Your task to perform on an android device: Find coffee shops on Maps Image 0: 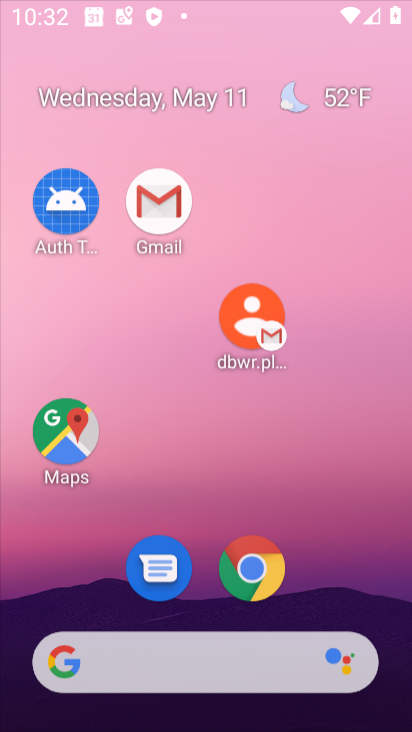
Step 0: drag from (354, 611) to (195, 180)
Your task to perform on an android device: Find coffee shops on Maps Image 1: 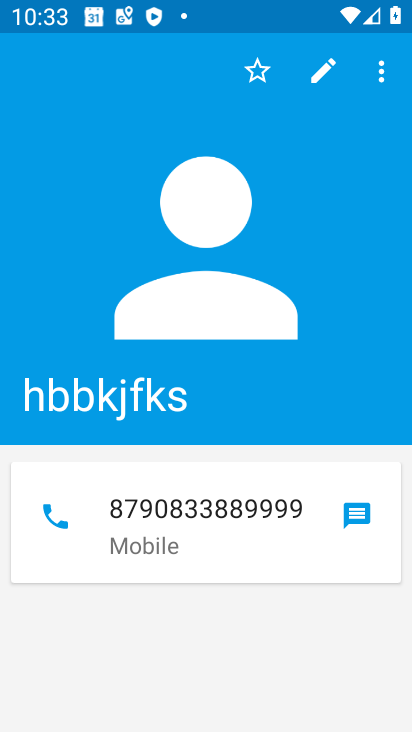
Step 1: press back button
Your task to perform on an android device: Find coffee shops on Maps Image 2: 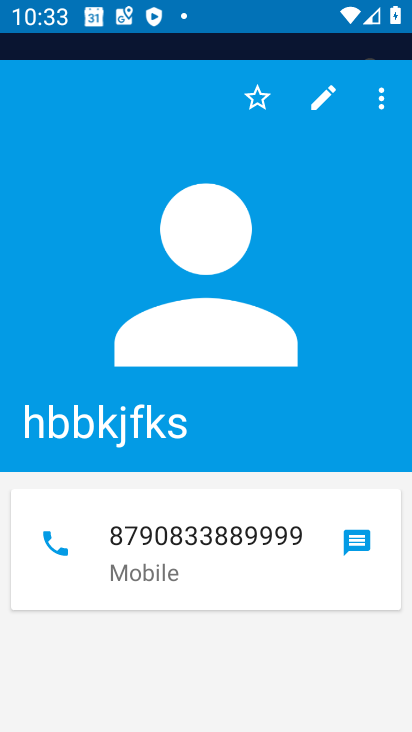
Step 2: press back button
Your task to perform on an android device: Find coffee shops on Maps Image 3: 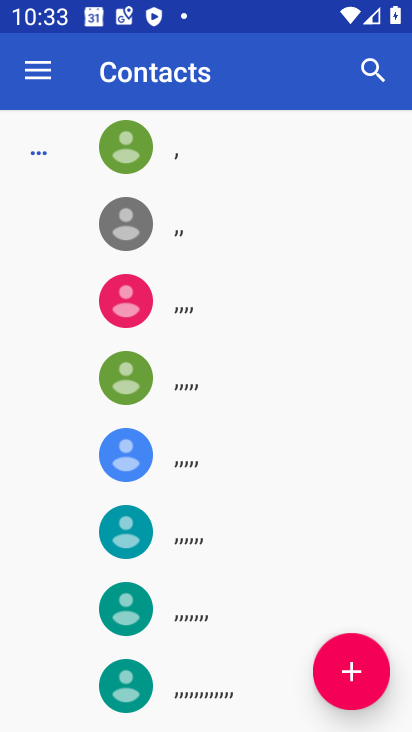
Step 3: press back button
Your task to perform on an android device: Find coffee shops on Maps Image 4: 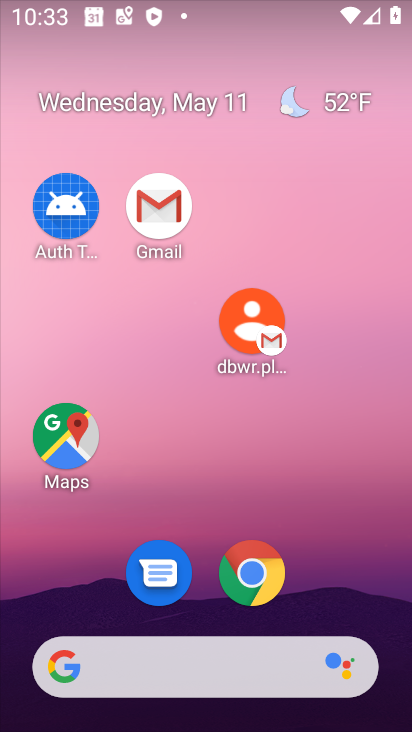
Step 4: drag from (175, 235) to (81, 85)
Your task to perform on an android device: Find coffee shops on Maps Image 5: 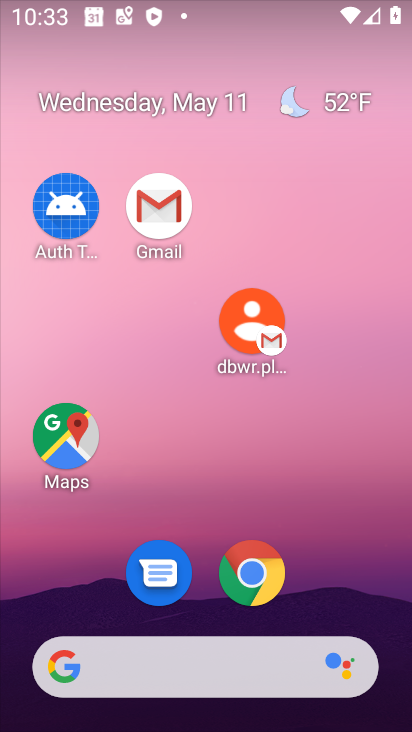
Step 5: drag from (372, 538) to (233, 114)
Your task to perform on an android device: Find coffee shops on Maps Image 6: 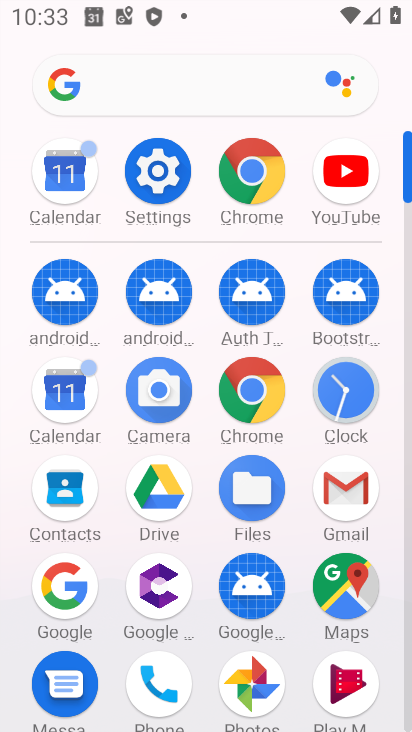
Step 6: click (355, 596)
Your task to perform on an android device: Find coffee shops on Maps Image 7: 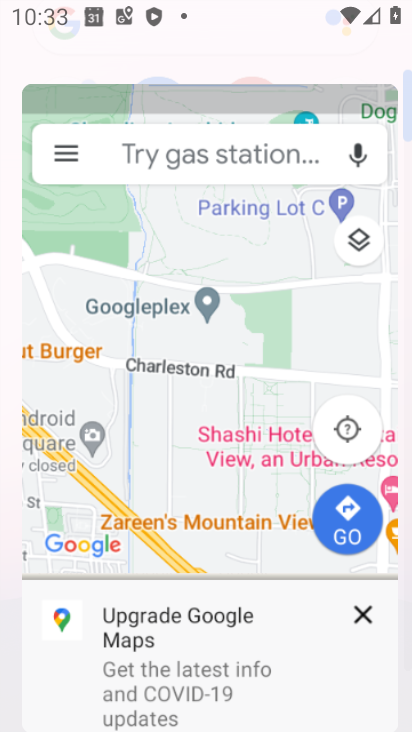
Step 7: click (337, 592)
Your task to perform on an android device: Find coffee shops on Maps Image 8: 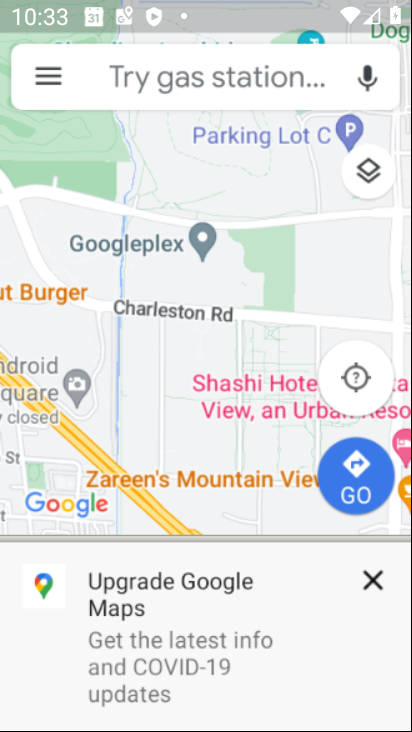
Step 8: click (337, 591)
Your task to perform on an android device: Find coffee shops on Maps Image 9: 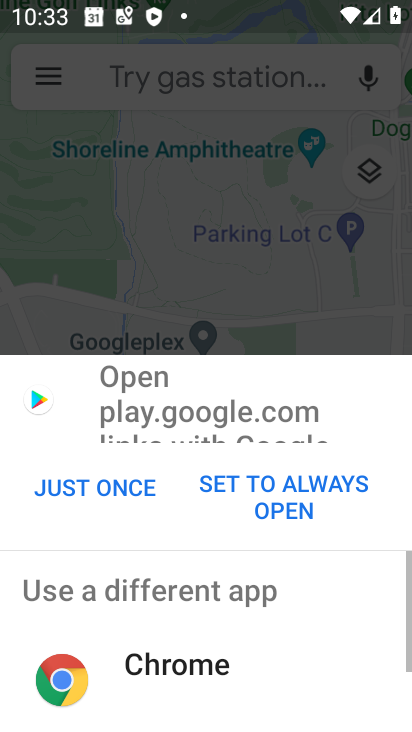
Step 9: click (225, 283)
Your task to perform on an android device: Find coffee shops on Maps Image 10: 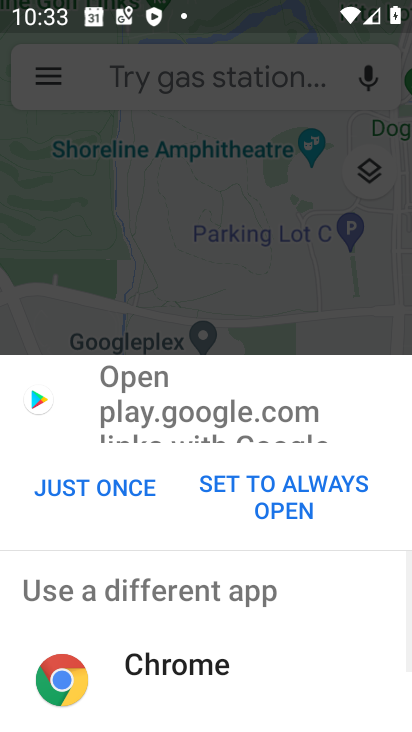
Step 10: click (224, 282)
Your task to perform on an android device: Find coffee shops on Maps Image 11: 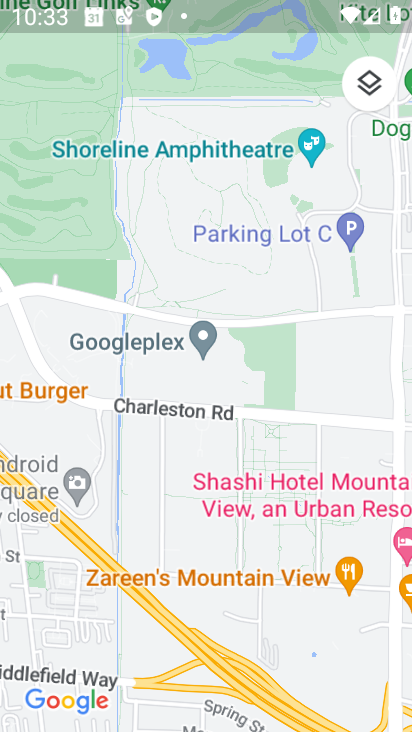
Step 11: drag from (171, 388) to (161, 220)
Your task to perform on an android device: Find coffee shops on Maps Image 12: 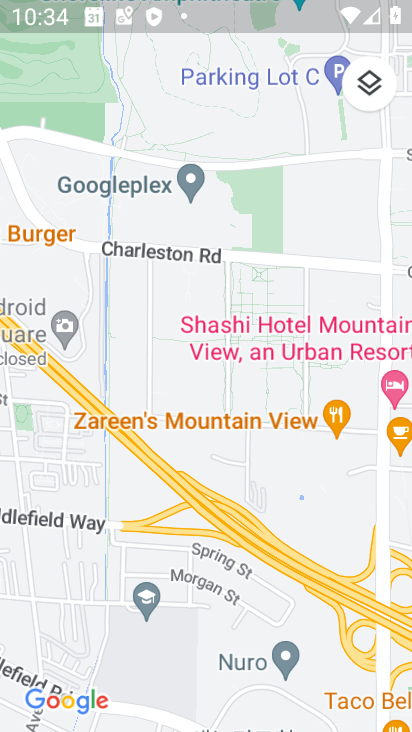
Step 12: drag from (175, 526) to (61, 169)
Your task to perform on an android device: Find coffee shops on Maps Image 13: 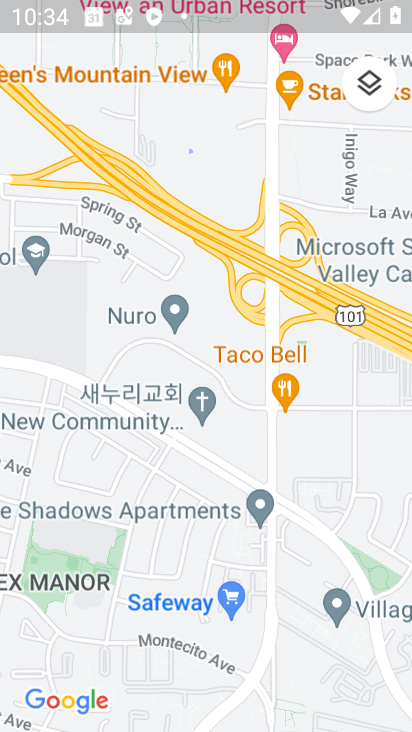
Step 13: drag from (175, 211) to (223, 564)
Your task to perform on an android device: Find coffee shops on Maps Image 14: 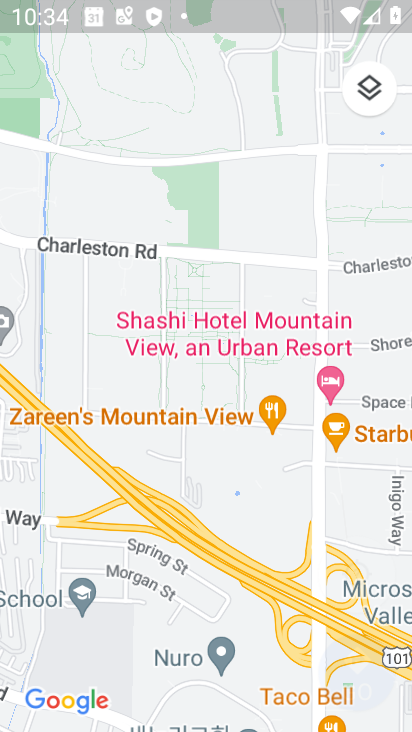
Step 14: drag from (175, 362) to (308, 639)
Your task to perform on an android device: Find coffee shops on Maps Image 15: 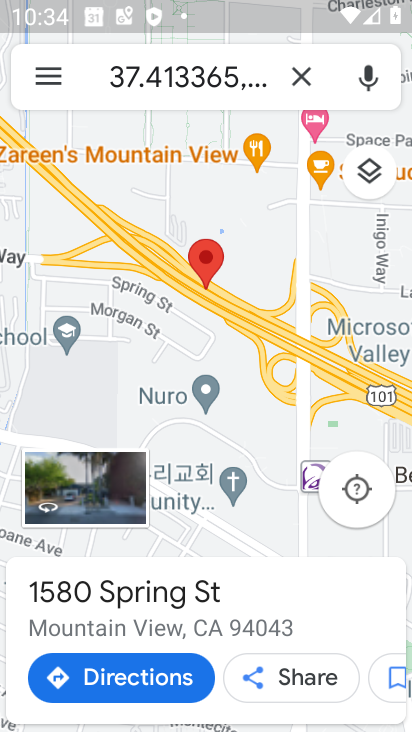
Step 15: click (114, 78)
Your task to perform on an android device: Find coffee shops on Maps Image 16: 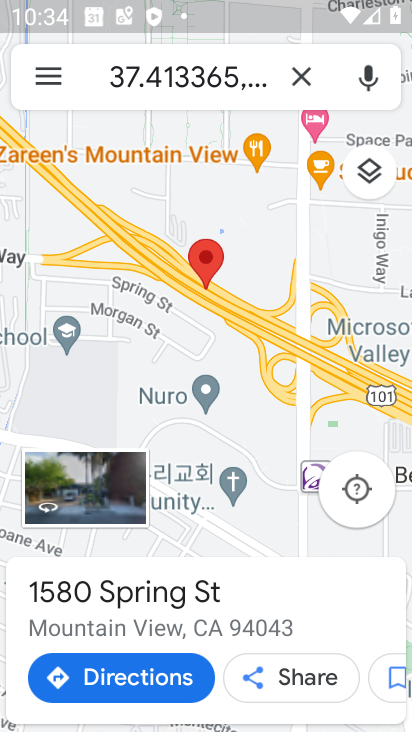
Step 16: click (118, 80)
Your task to perform on an android device: Find coffee shops on Maps Image 17: 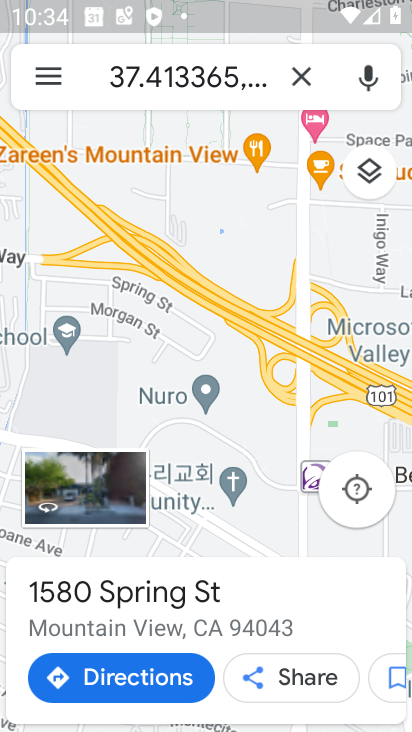
Step 17: click (117, 85)
Your task to perform on an android device: Find coffee shops on Maps Image 18: 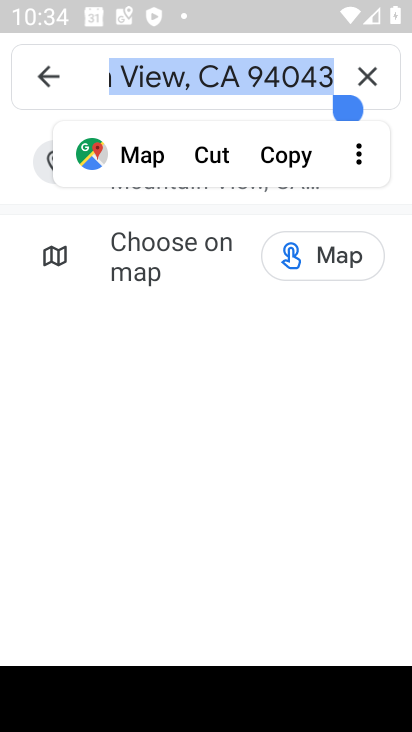
Step 18: click (353, 69)
Your task to perform on an android device: Find coffee shops on Maps Image 19: 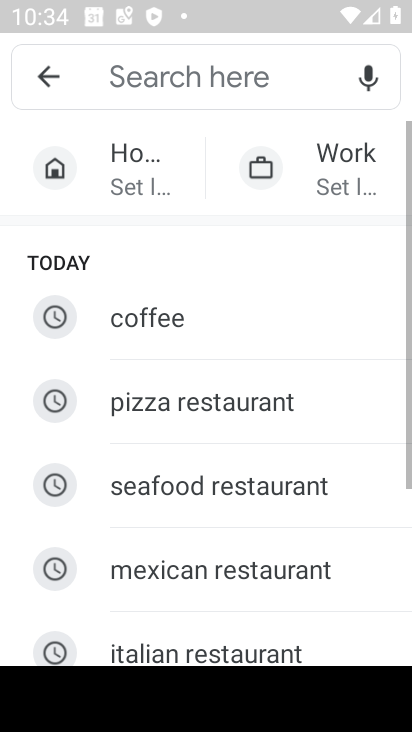
Step 19: click (353, 69)
Your task to perform on an android device: Find coffee shops on Maps Image 20: 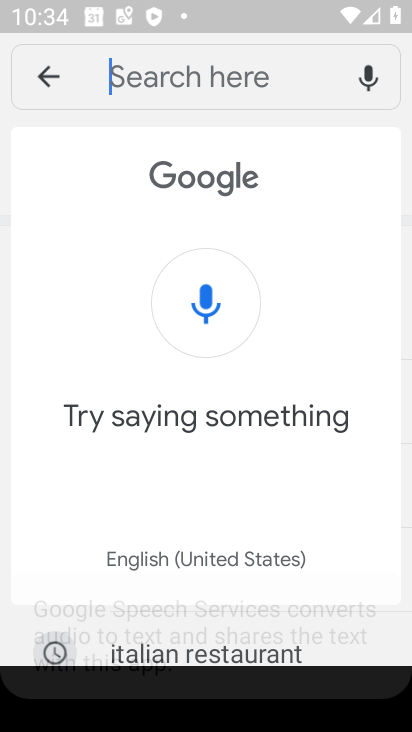
Step 20: click (102, 33)
Your task to perform on an android device: Find coffee shops on Maps Image 21: 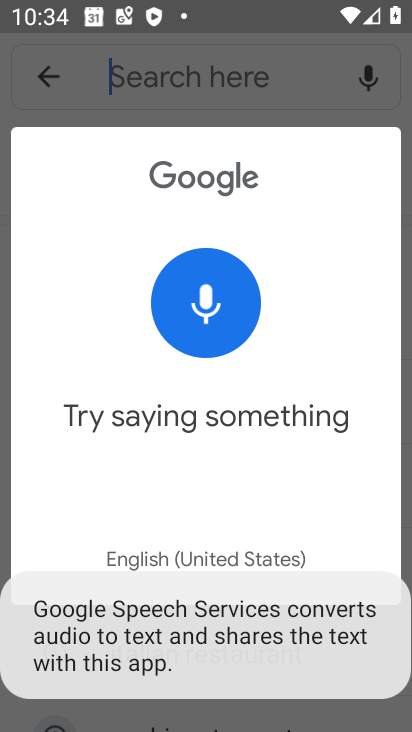
Step 21: click (122, 99)
Your task to perform on an android device: Find coffee shops on Maps Image 22: 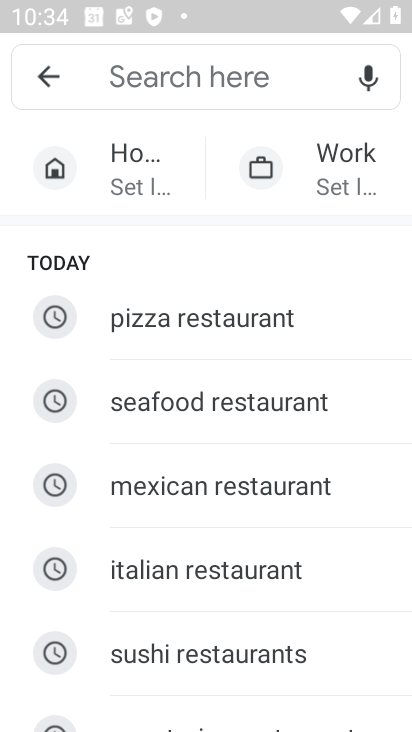
Step 22: drag from (210, 623) to (112, 332)
Your task to perform on an android device: Find coffee shops on Maps Image 23: 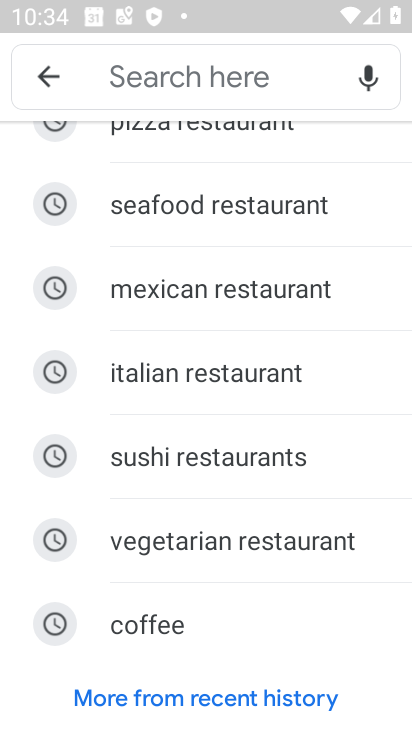
Step 23: drag from (154, 272) to (248, 714)
Your task to perform on an android device: Find coffee shops on Maps Image 24: 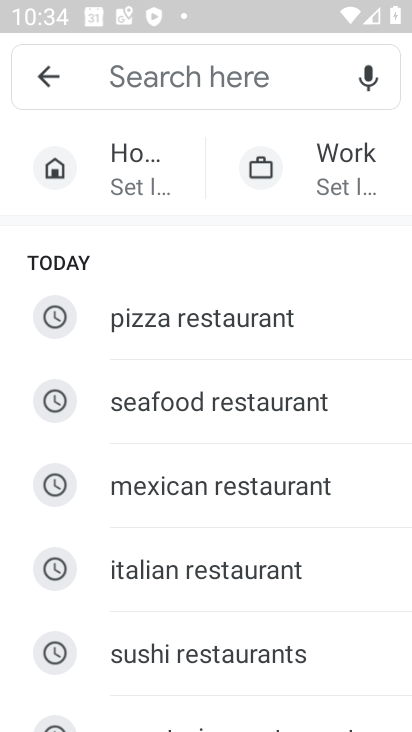
Step 24: click (115, 67)
Your task to perform on an android device: Find coffee shops on Maps Image 25: 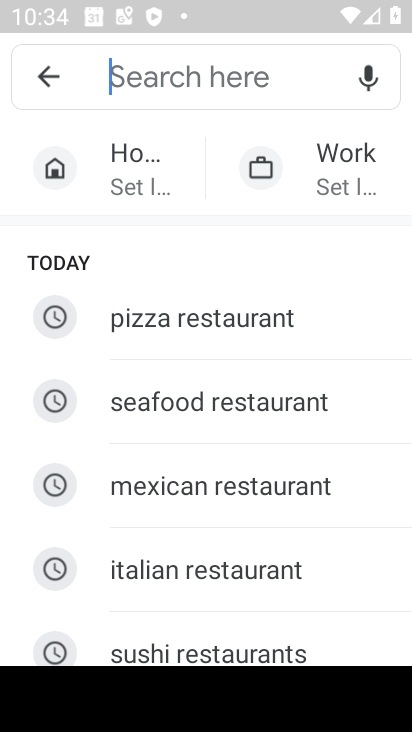
Step 25: type "coffee"
Your task to perform on an android device: Find coffee shops on Maps Image 26: 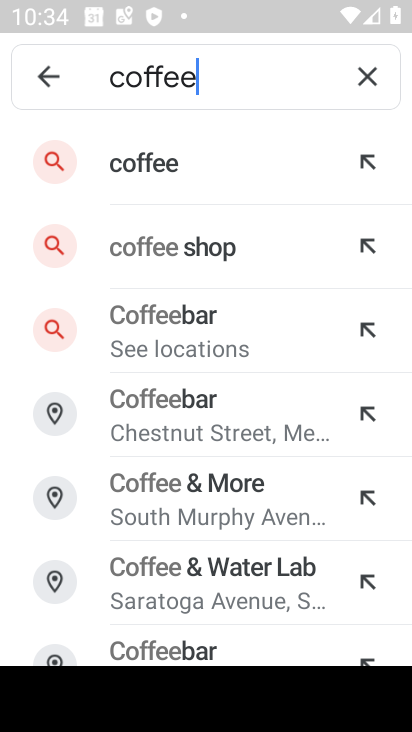
Step 26: click (136, 170)
Your task to perform on an android device: Find coffee shops on Maps Image 27: 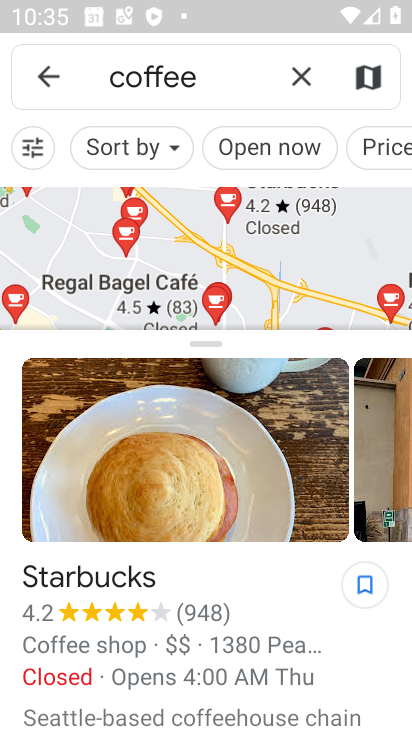
Step 27: task complete